Your task to perform on an android device: open a new tab in the chrome app Image 0: 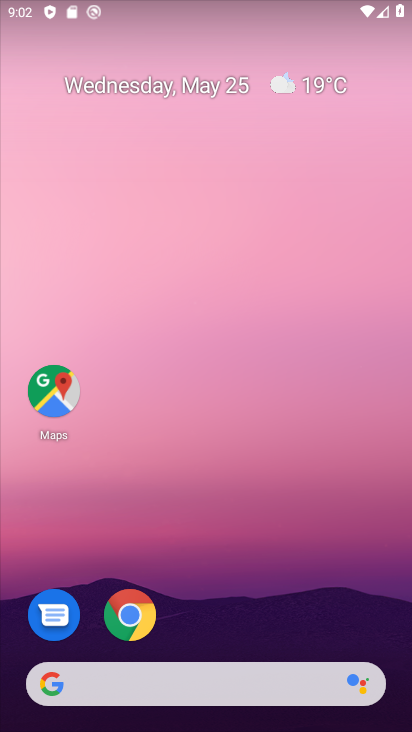
Step 0: drag from (252, 714) to (149, 82)
Your task to perform on an android device: open a new tab in the chrome app Image 1: 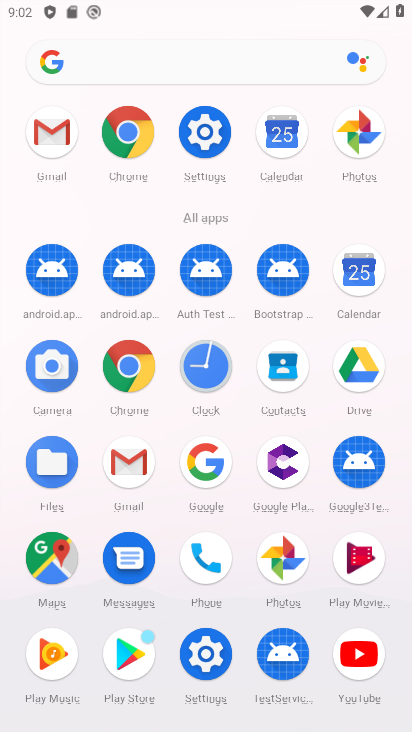
Step 1: click (122, 141)
Your task to perform on an android device: open a new tab in the chrome app Image 2: 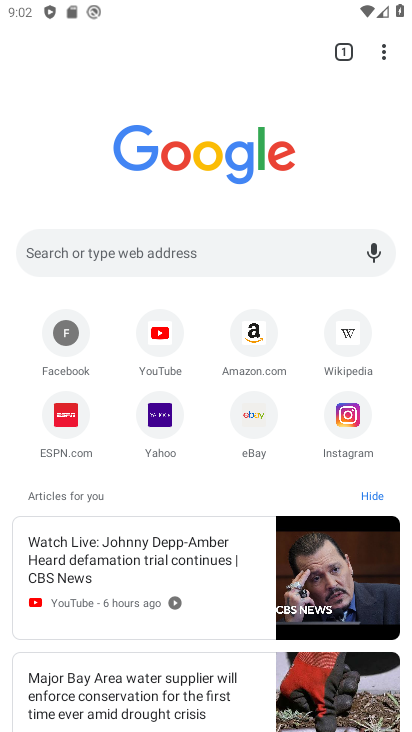
Step 2: click (385, 49)
Your task to perform on an android device: open a new tab in the chrome app Image 3: 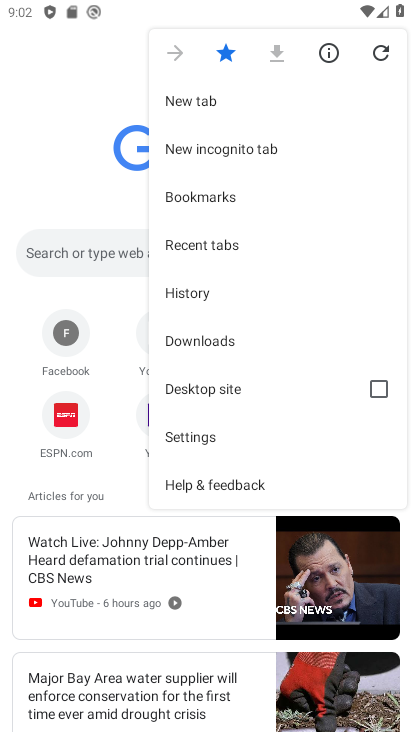
Step 3: click (225, 98)
Your task to perform on an android device: open a new tab in the chrome app Image 4: 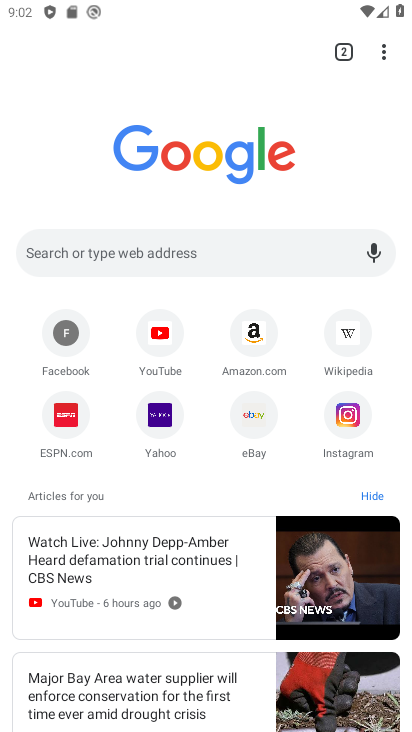
Step 4: task complete